Your task to perform on an android device: Open accessibility settings Image 0: 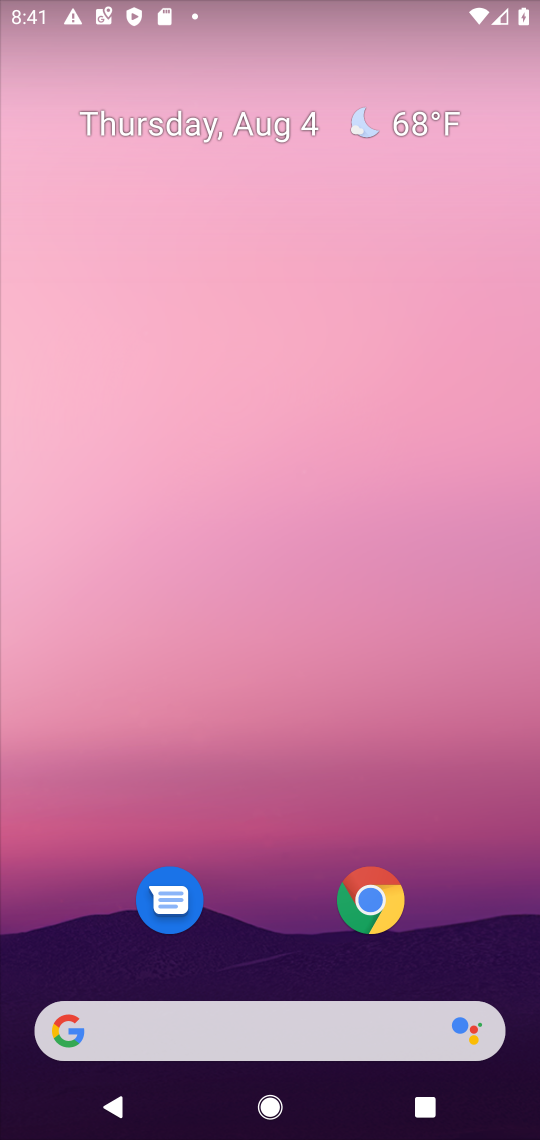
Step 0: drag from (224, 926) to (227, 330)
Your task to perform on an android device: Open accessibility settings Image 1: 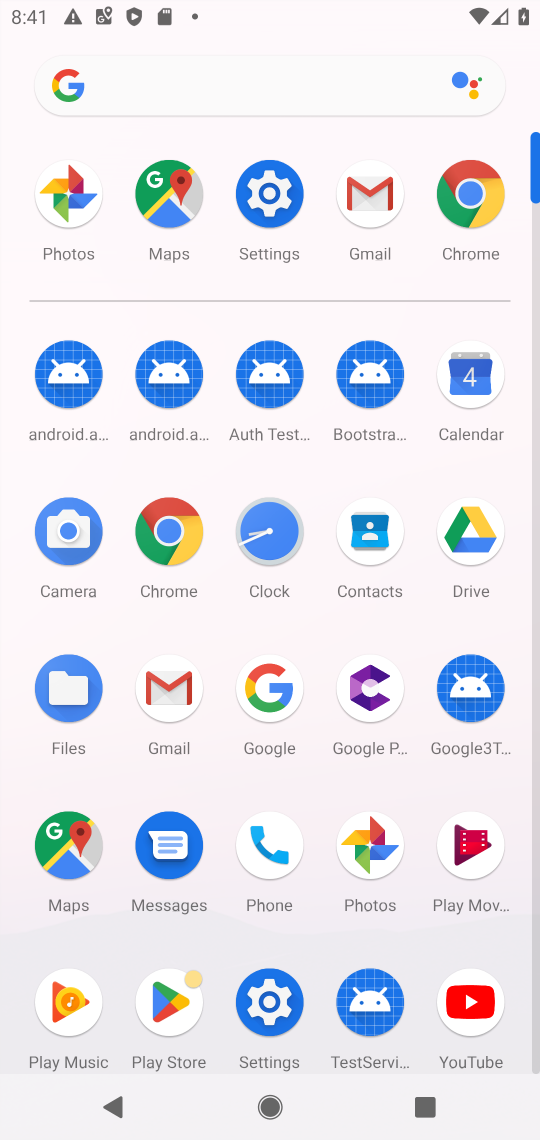
Step 1: click (257, 199)
Your task to perform on an android device: Open accessibility settings Image 2: 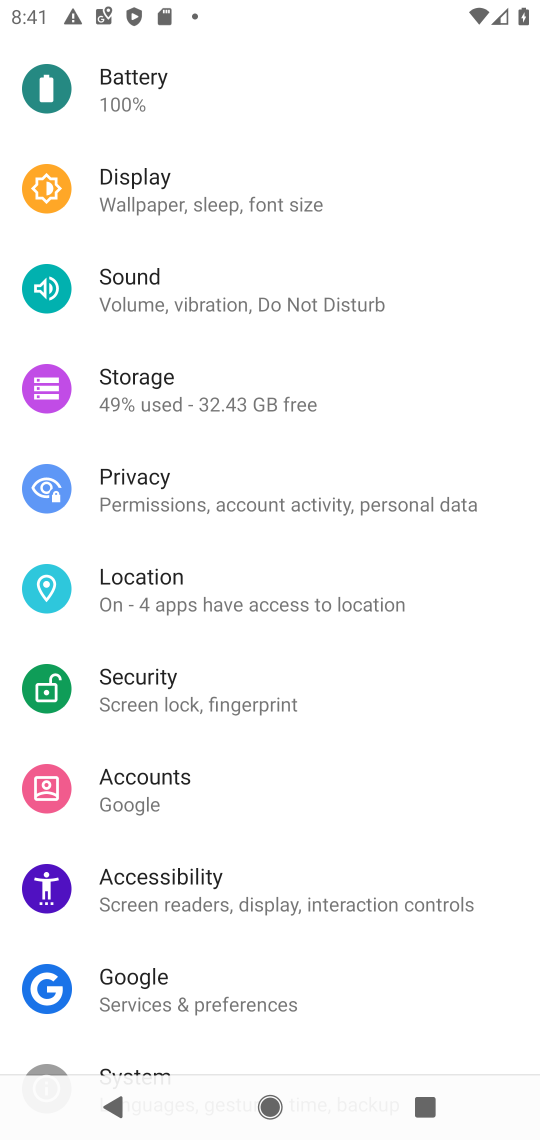
Step 2: click (124, 903)
Your task to perform on an android device: Open accessibility settings Image 3: 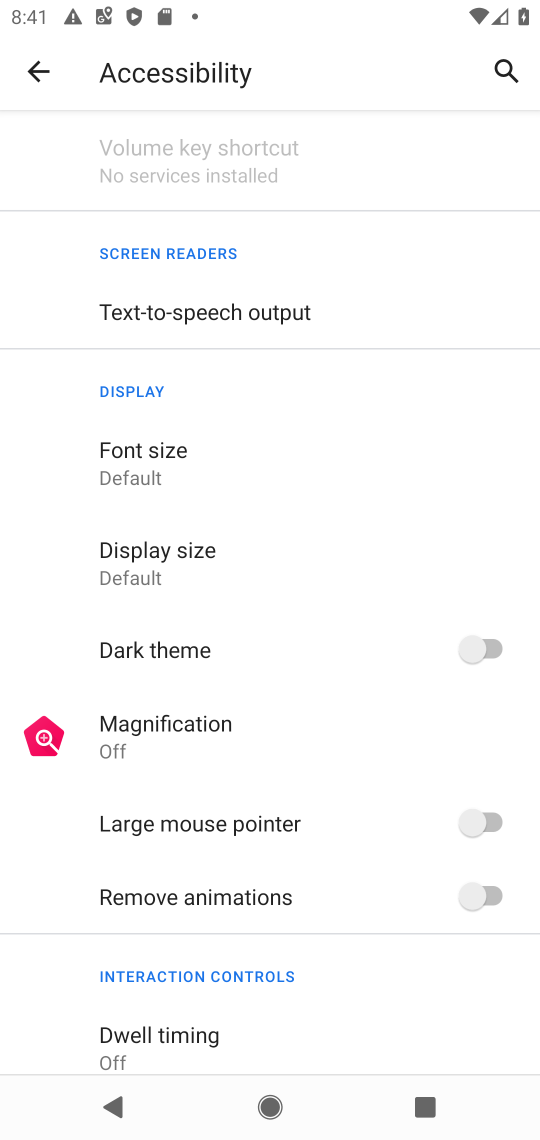
Step 3: task complete